Your task to perform on an android device: Open calendar and show me the third week of next month Image 0: 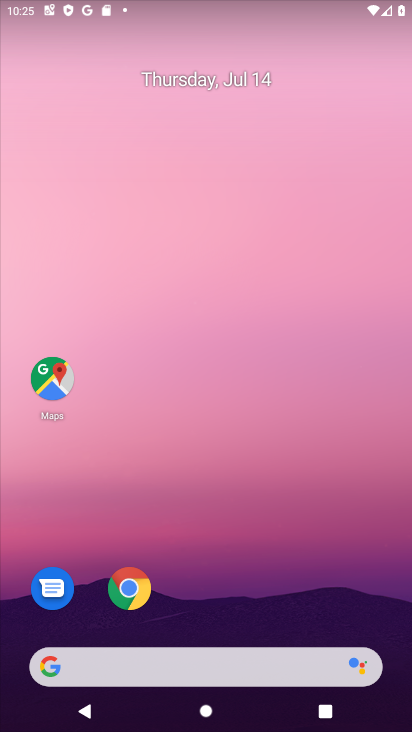
Step 0: drag from (173, 659) to (246, 124)
Your task to perform on an android device: Open calendar and show me the third week of next month Image 1: 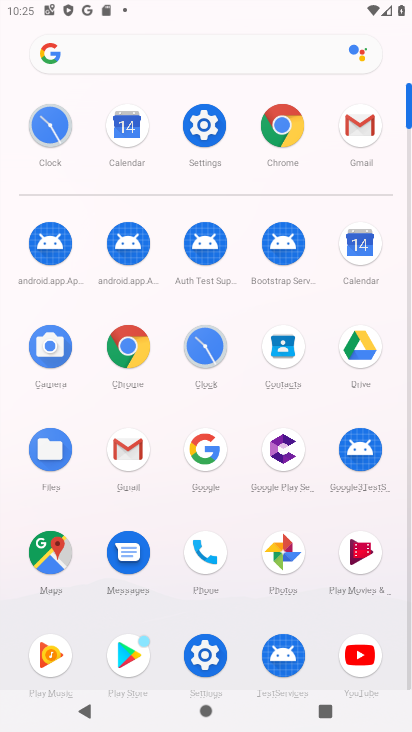
Step 1: click (360, 249)
Your task to perform on an android device: Open calendar and show me the third week of next month Image 2: 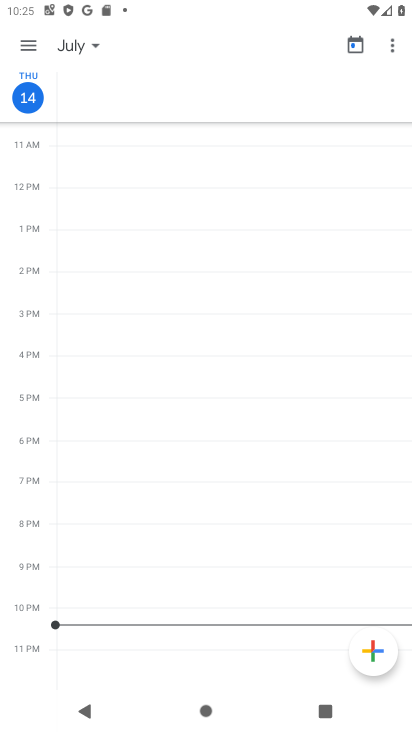
Step 2: click (73, 45)
Your task to perform on an android device: Open calendar and show me the third week of next month Image 3: 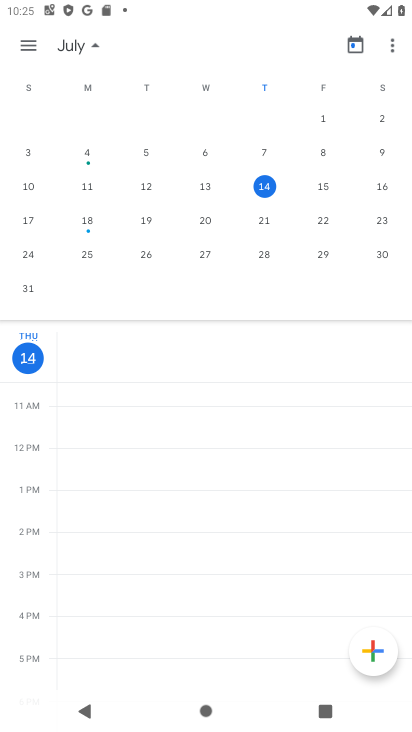
Step 3: drag from (312, 234) to (72, 252)
Your task to perform on an android device: Open calendar and show me the third week of next month Image 4: 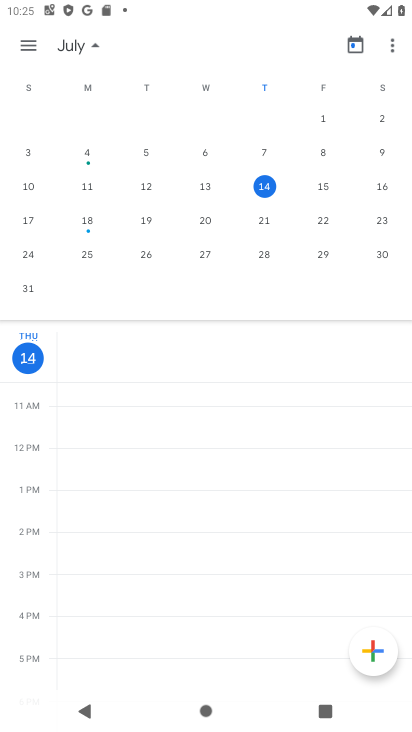
Step 4: drag from (312, 216) to (12, 288)
Your task to perform on an android device: Open calendar and show me the third week of next month Image 5: 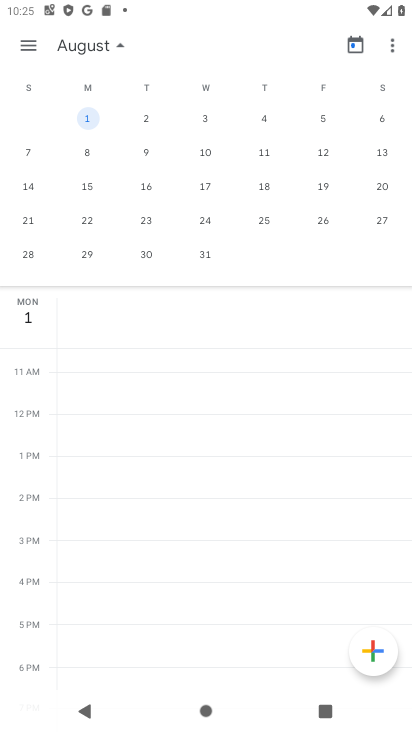
Step 5: click (31, 185)
Your task to perform on an android device: Open calendar and show me the third week of next month Image 6: 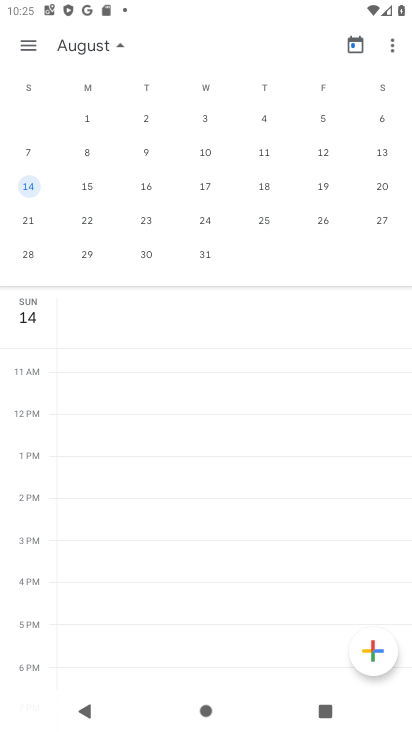
Step 6: click (34, 43)
Your task to perform on an android device: Open calendar and show me the third week of next month Image 7: 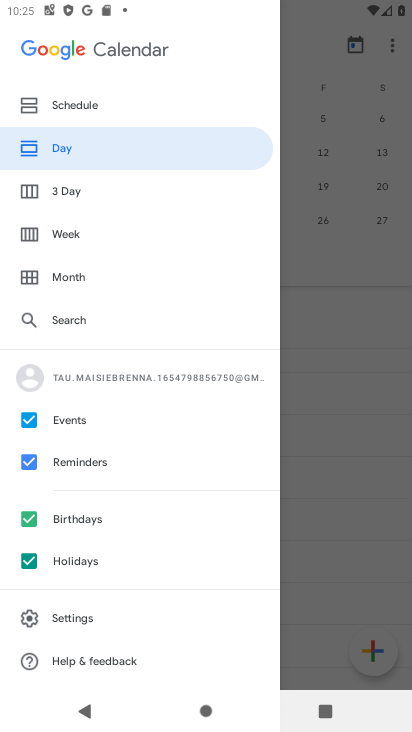
Step 7: click (82, 233)
Your task to perform on an android device: Open calendar and show me the third week of next month Image 8: 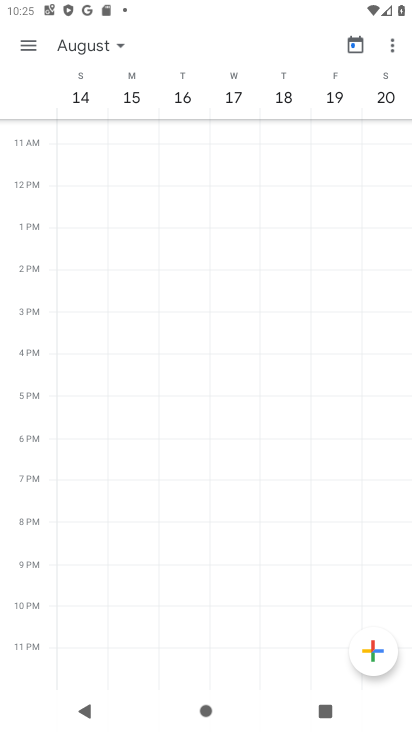
Step 8: task complete